Your task to perform on an android device: Open my contact list Image 0: 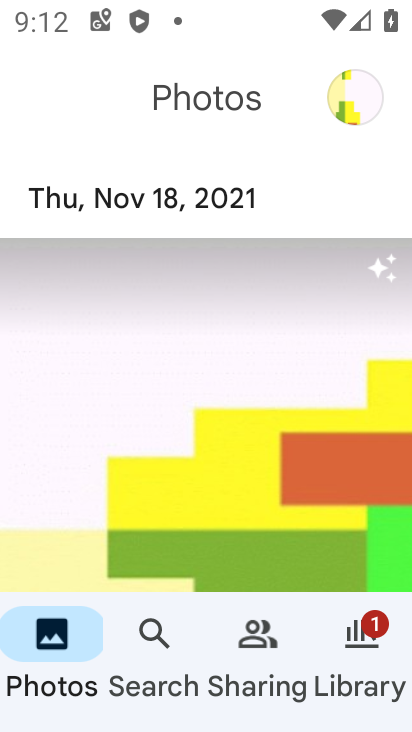
Step 0: press home button
Your task to perform on an android device: Open my contact list Image 1: 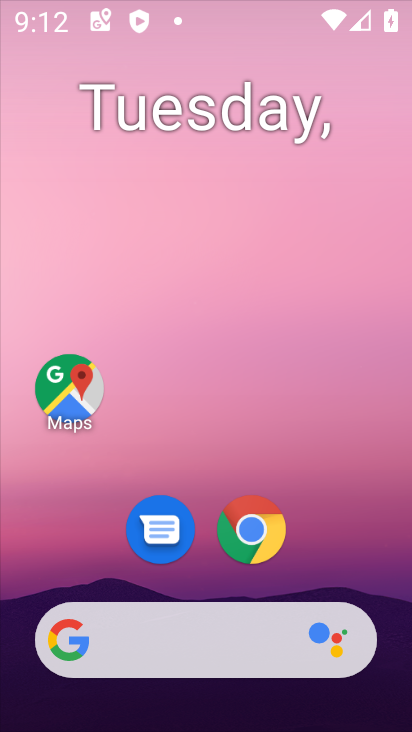
Step 1: drag from (251, 631) to (355, 106)
Your task to perform on an android device: Open my contact list Image 2: 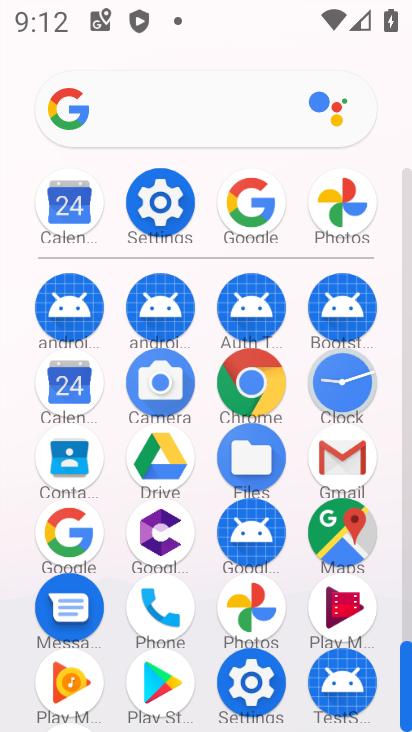
Step 2: click (71, 465)
Your task to perform on an android device: Open my contact list Image 3: 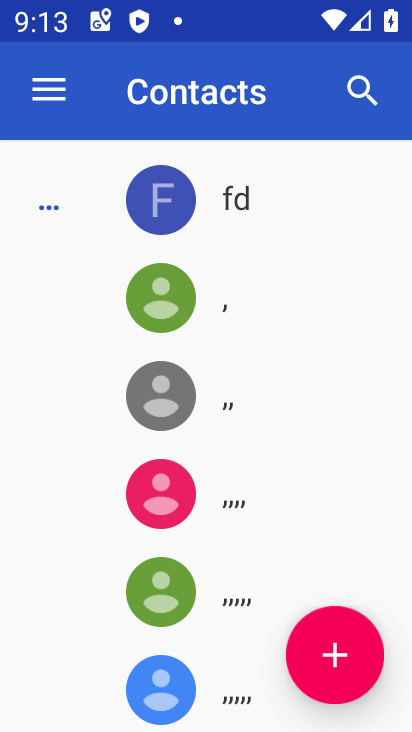
Step 3: task complete